Your task to perform on an android device: toggle airplane mode Image 0: 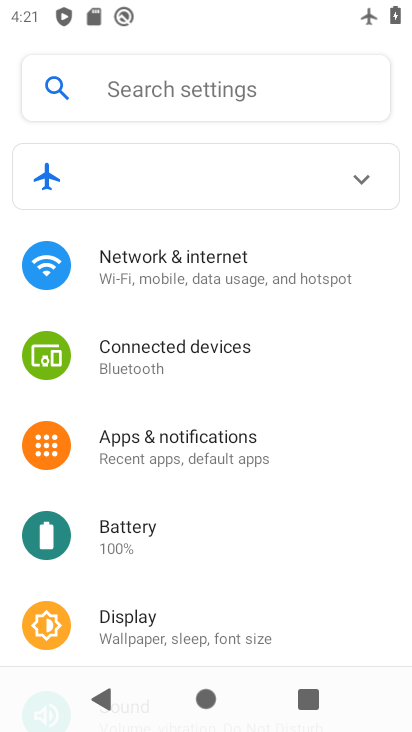
Step 0: drag from (293, 627) to (259, 286)
Your task to perform on an android device: toggle airplane mode Image 1: 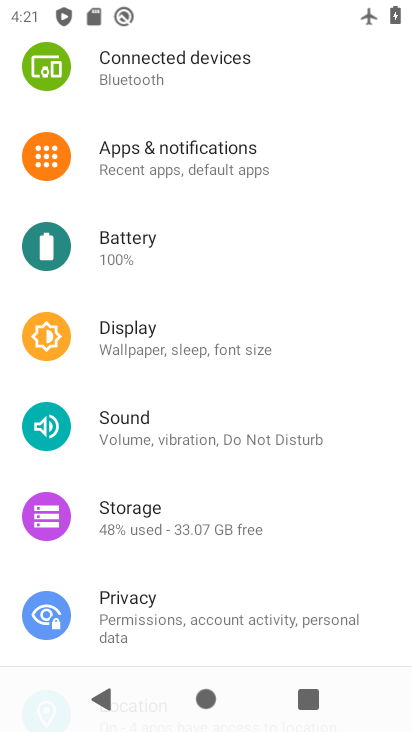
Step 1: drag from (326, 192) to (328, 633)
Your task to perform on an android device: toggle airplane mode Image 2: 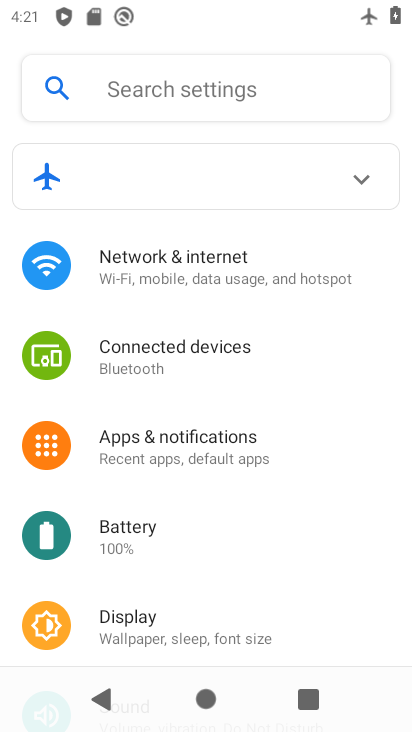
Step 2: click (208, 276)
Your task to perform on an android device: toggle airplane mode Image 3: 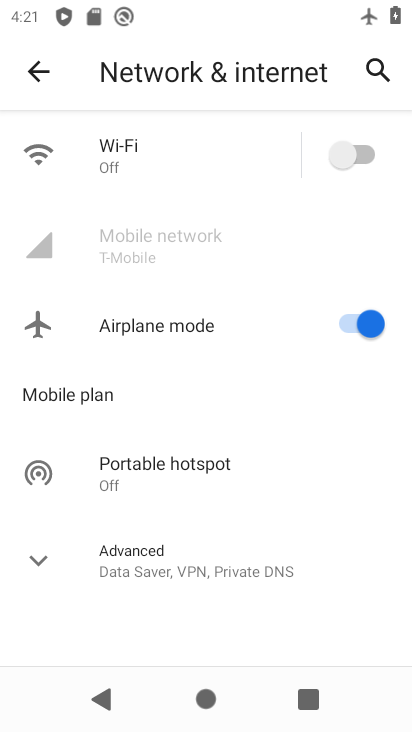
Step 3: drag from (171, 330) to (167, 647)
Your task to perform on an android device: toggle airplane mode Image 4: 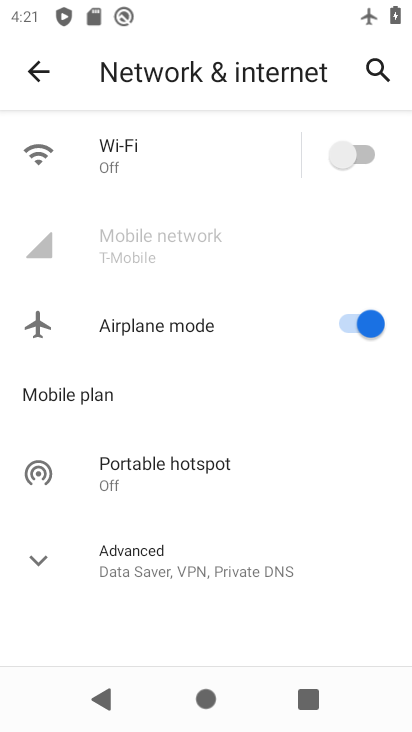
Step 4: click (353, 319)
Your task to perform on an android device: toggle airplane mode Image 5: 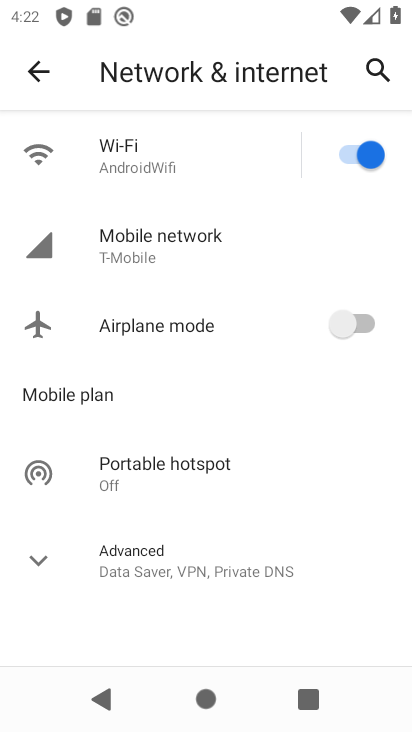
Step 5: task complete